Your task to perform on an android device: Open internet settings Image 0: 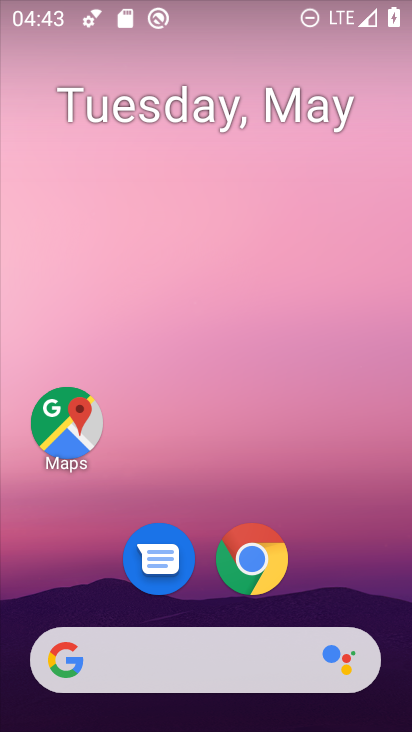
Step 0: drag from (213, 720) to (238, 148)
Your task to perform on an android device: Open internet settings Image 1: 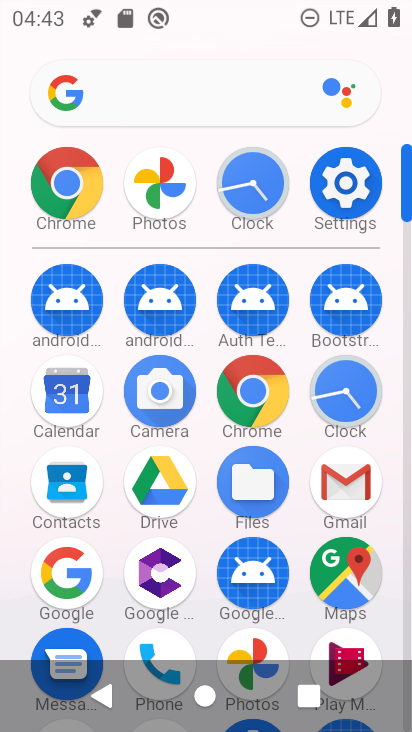
Step 1: click (345, 186)
Your task to perform on an android device: Open internet settings Image 2: 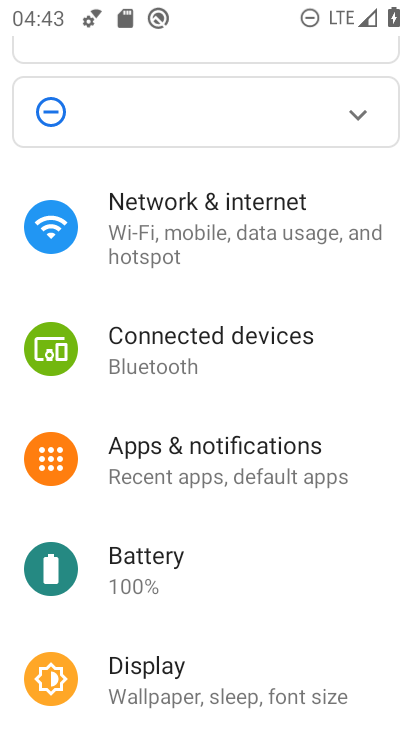
Step 2: click (174, 230)
Your task to perform on an android device: Open internet settings Image 3: 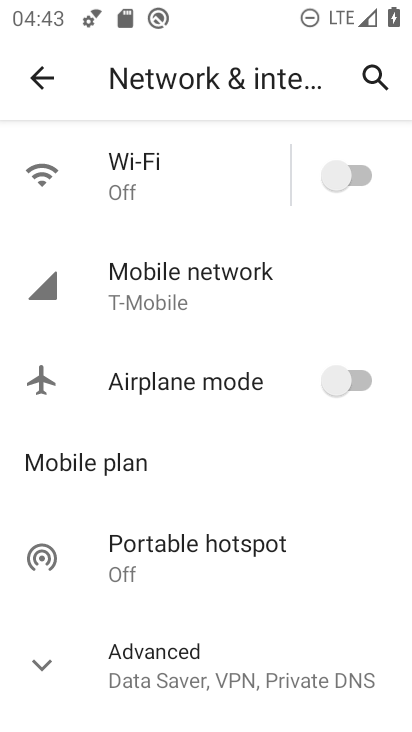
Step 3: task complete